Your task to perform on an android device: Open calendar and show me the first week of next month Image 0: 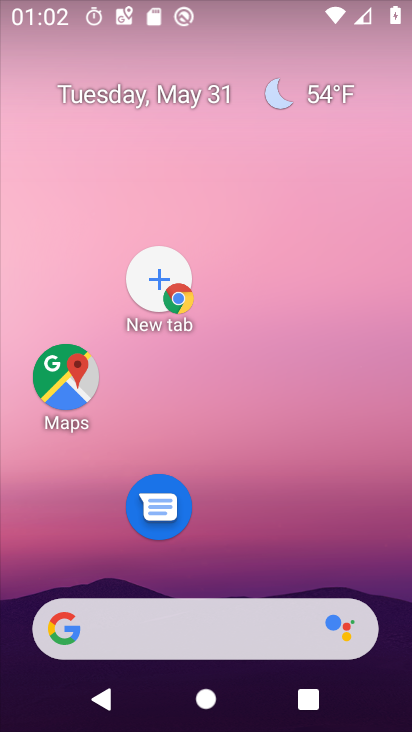
Step 0: drag from (233, 670) to (150, 185)
Your task to perform on an android device: Open calendar and show me the first week of next month Image 1: 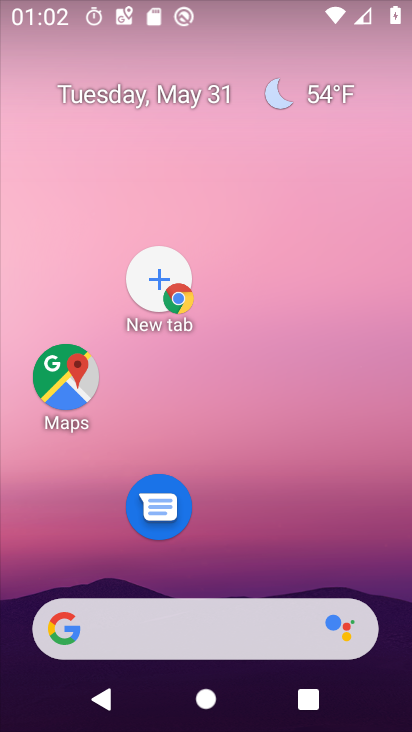
Step 1: drag from (263, 554) to (243, 93)
Your task to perform on an android device: Open calendar and show me the first week of next month Image 2: 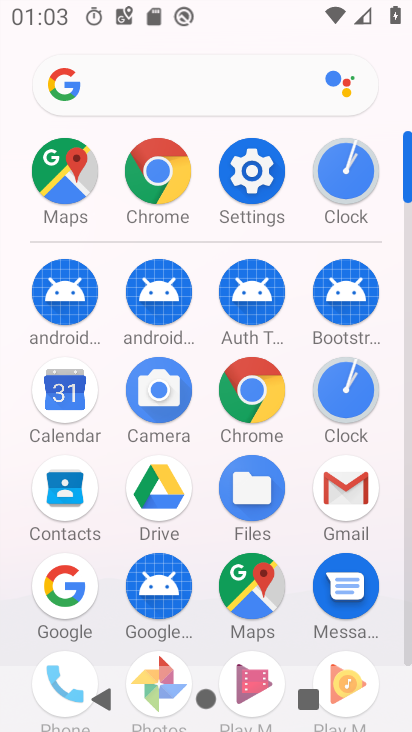
Step 2: click (64, 396)
Your task to perform on an android device: Open calendar and show me the first week of next month Image 3: 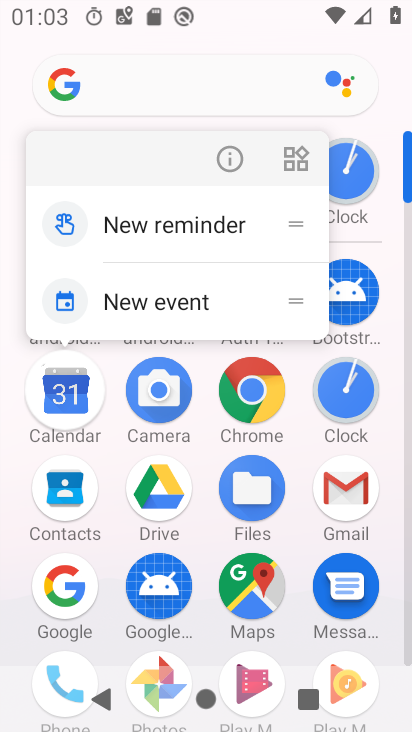
Step 3: click (74, 388)
Your task to perform on an android device: Open calendar and show me the first week of next month Image 4: 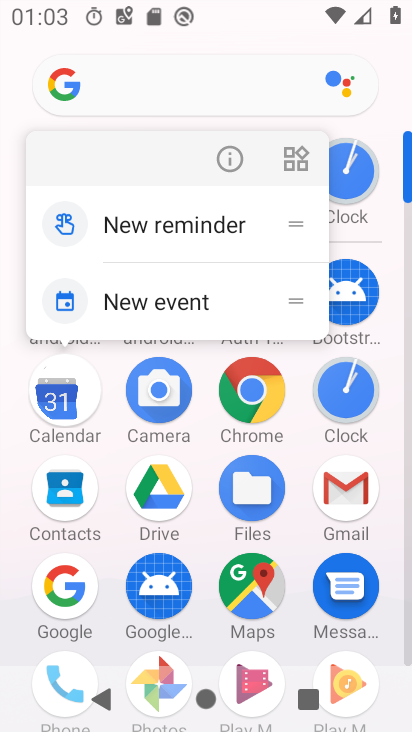
Step 4: click (74, 388)
Your task to perform on an android device: Open calendar and show me the first week of next month Image 5: 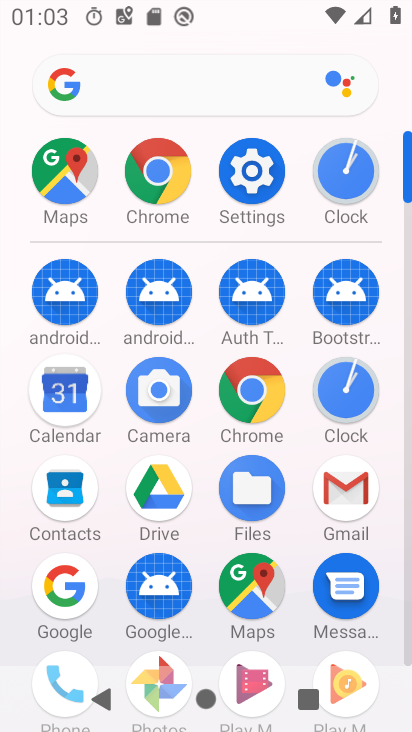
Step 5: click (74, 389)
Your task to perform on an android device: Open calendar and show me the first week of next month Image 6: 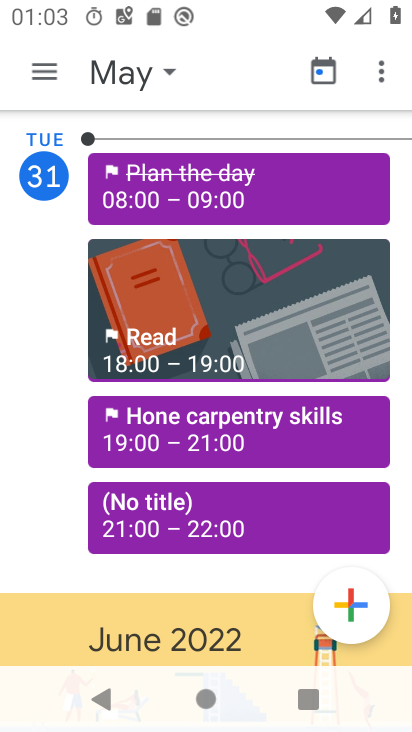
Step 6: click (168, 74)
Your task to perform on an android device: Open calendar and show me the first week of next month Image 7: 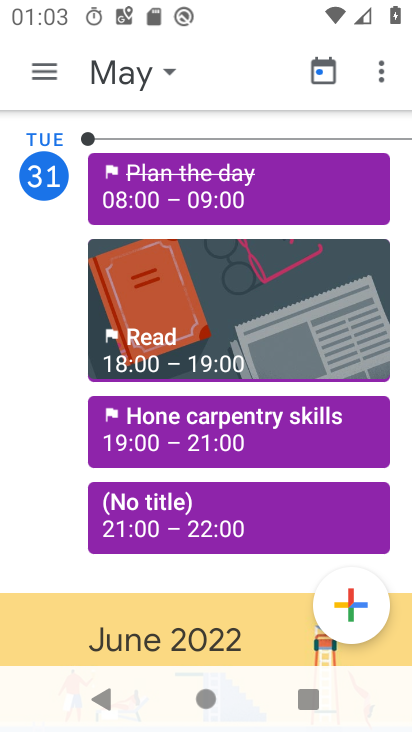
Step 7: click (165, 72)
Your task to perform on an android device: Open calendar and show me the first week of next month Image 8: 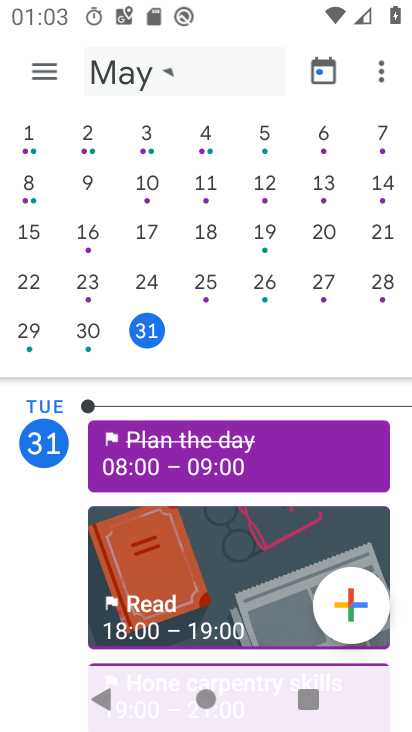
Step 8: click (163, 71)
Your task to perform on an android device: Open calendar and show me the first week of next month Image 9: 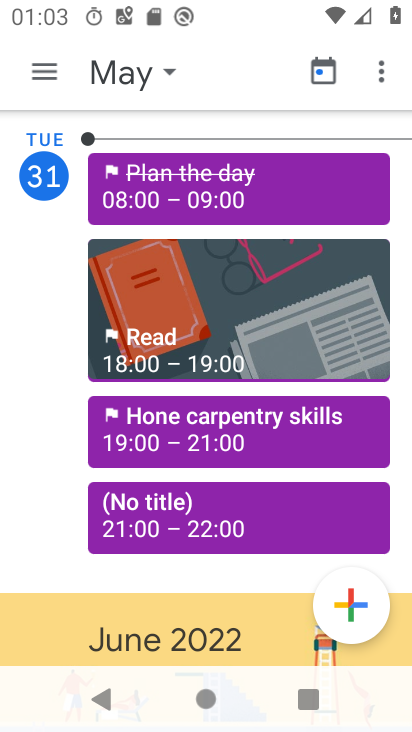
Step 9: click (173, 72)
Your task to perform on an android device: Open calendar and show me the first week of next month Image 10: 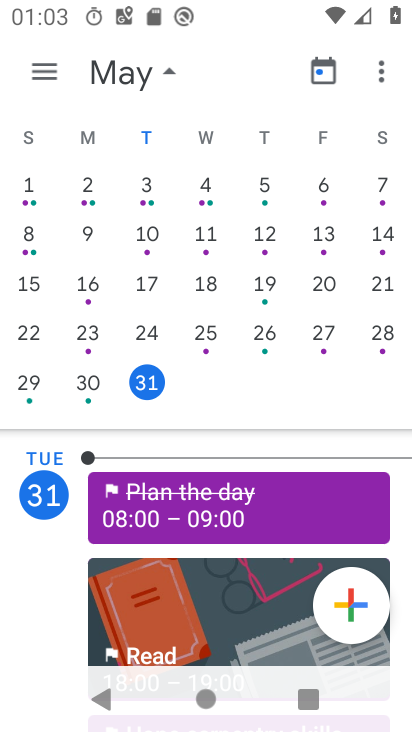
Step 10: task complete